Your task to perform on an android device: change keyboard looks Image 0: 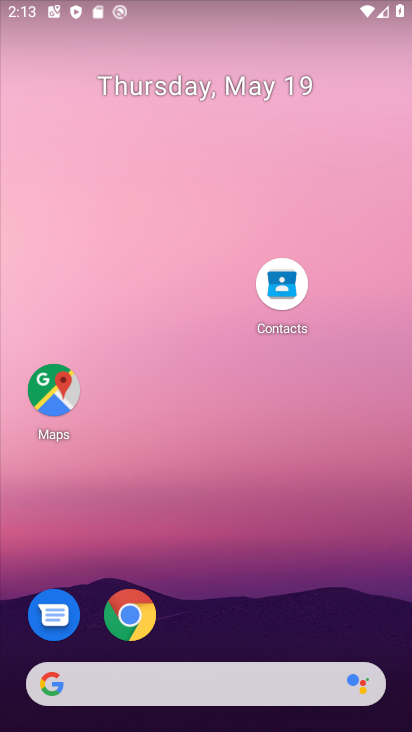
Step 0: drag from (230, 701) to (293, 265)
Your task to perform on an android device: change keyboard looks Image 1: 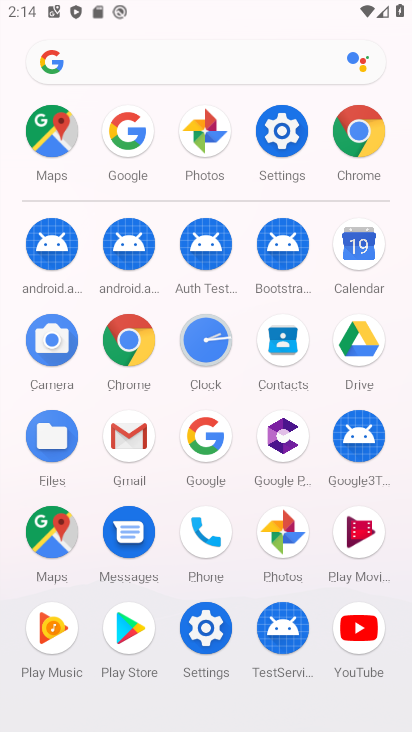
Step 1: click (290, 146)
Your task to perform on an android device: change keyboard looks Image 2: 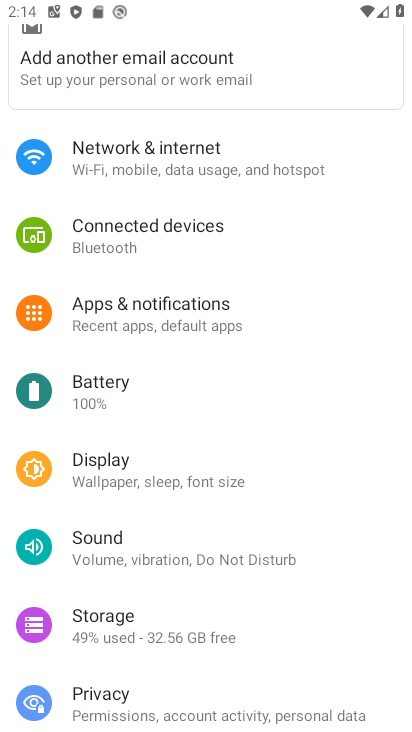
Step 2: drag from (159, 617) to (167, 218)
Your task to perform on an android device: change keyboard looks Image 3: 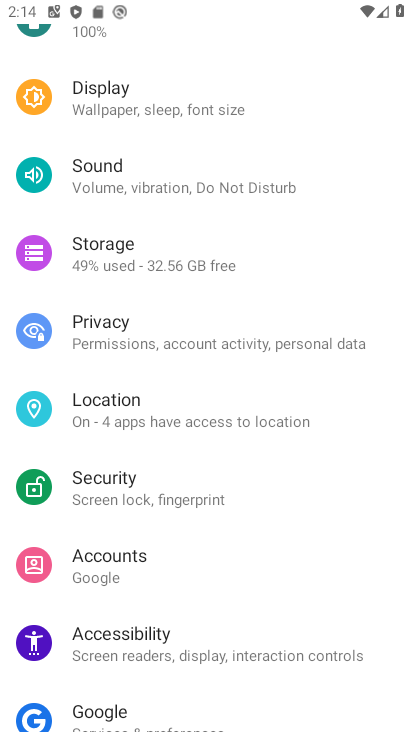
Step 3: drag from (180, 551) to (208, 240)
Your task to perform on an android device: change keyboard looks Image 4: 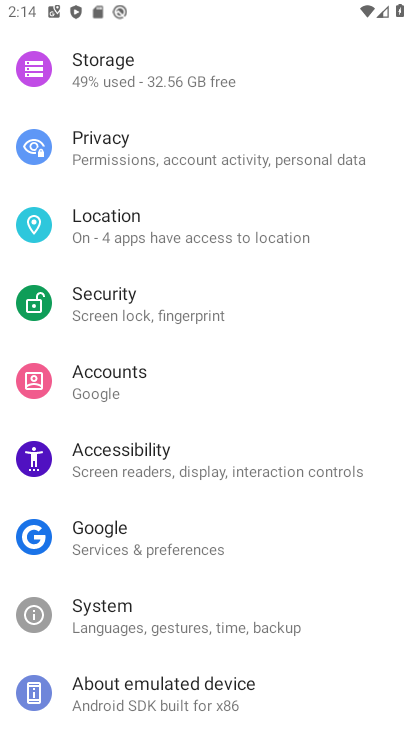
Step 4: drag from (222, 611) to (233, 457)
Your task to perform on an android device: change keyboard looks Image 5: 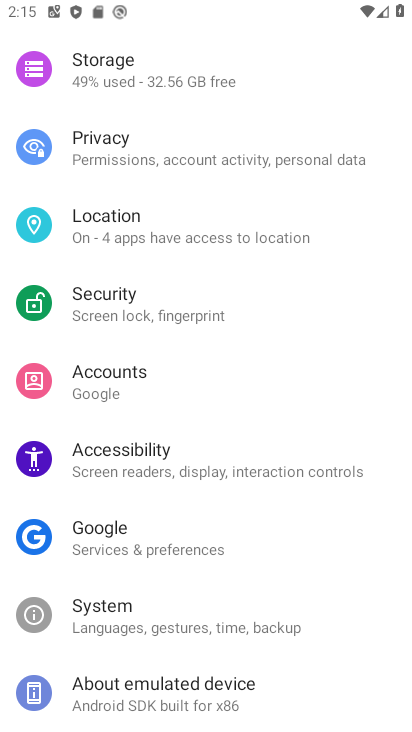
Step 5: click (158, 624)
Your task to perform on an android device: change keyboard looks Image 6: 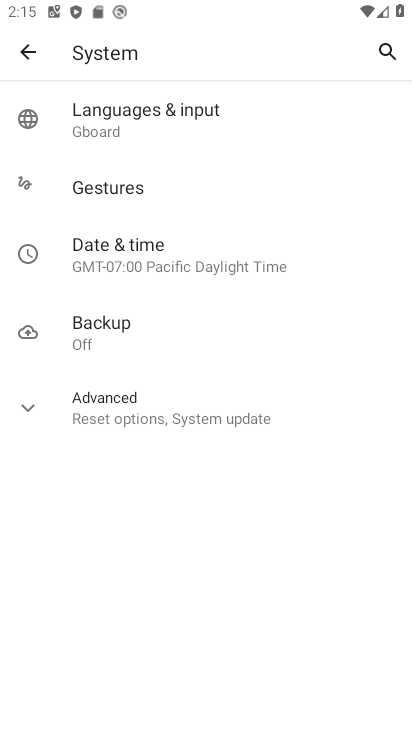
Step 6: click (241, 135)
Your task to perform on an android device: change keyboard looks Image 7: 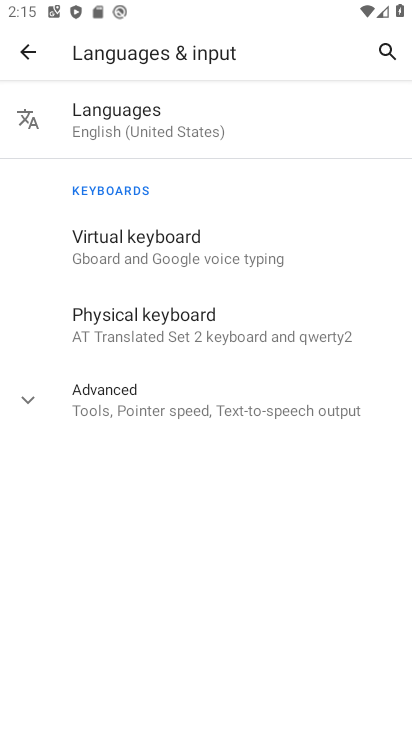
Step 7: click (182, 247)
Your task to perform on an android device: change keyboard looks Image 8: 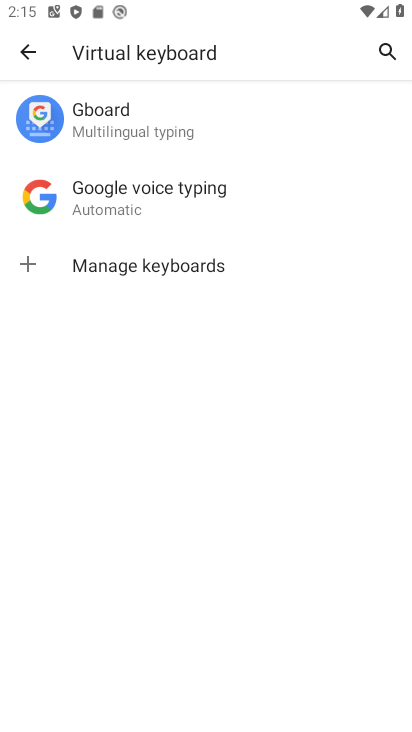
Step 8: click (169, 130)
Your task to perform on an android device: change keyboard looks Image 9: 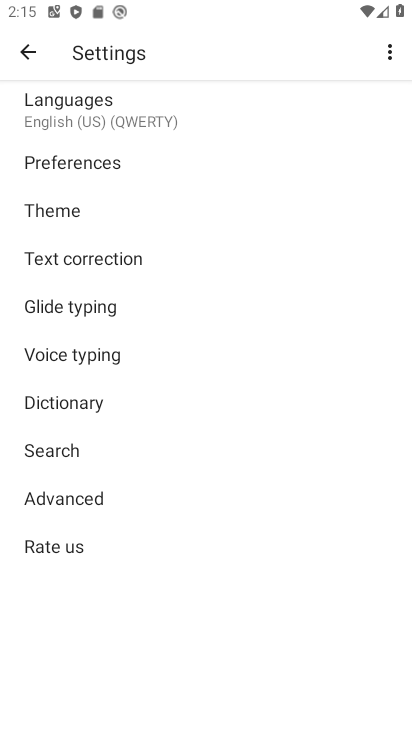
Step 9: click (105, 209)
Your task to perform on an android device: change keyboard looks Image 10: 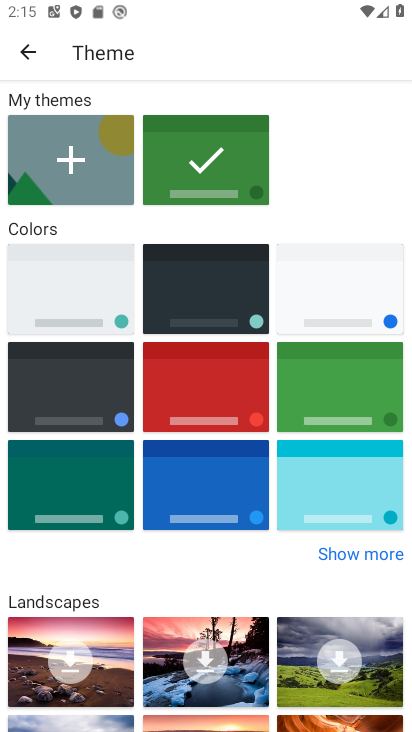
Step 10: click (95, 381)
Your task to perform on an android device: change keyboard looks Image 11: 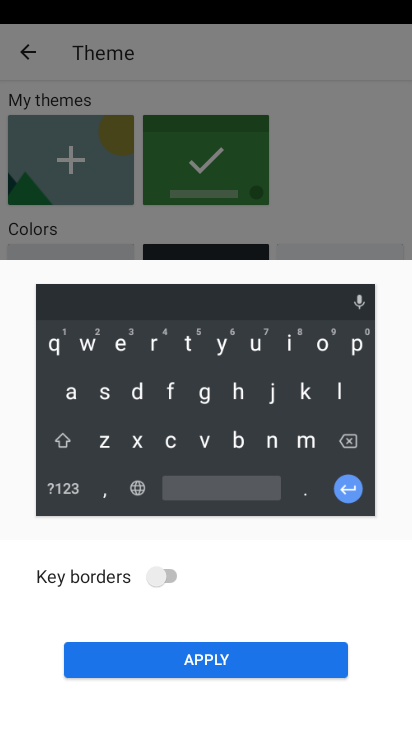
Step 11: click (284, 671)
Your task to perform on an android device: change keyboard looks Image 12: 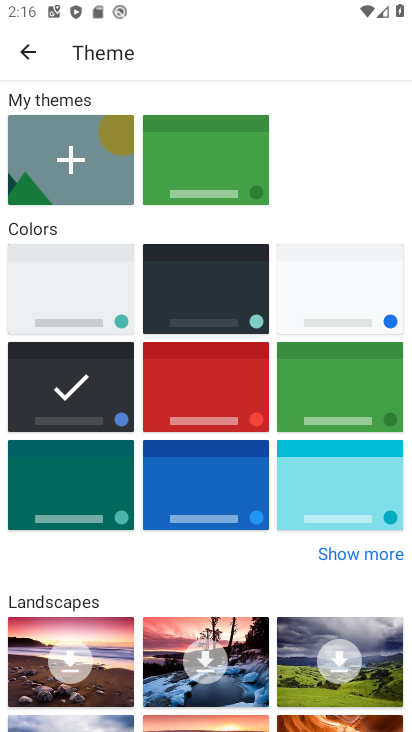
Step 12: task complete